Your task to perform on an android device: Open Google Chrome and click the shortcut for Amazon.com Image 0: 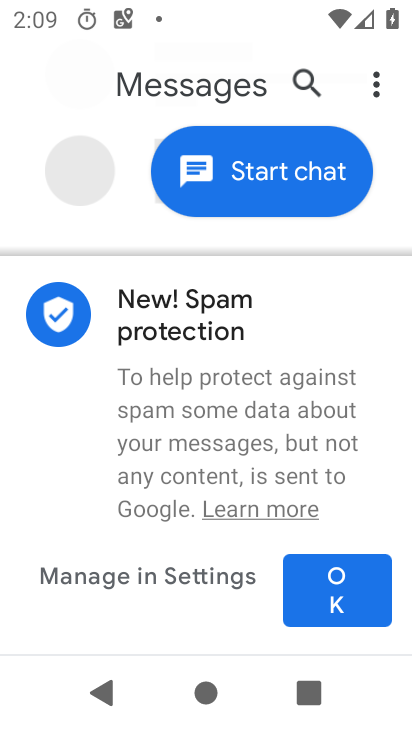
Step 0: press home button
Your task to perform on an android device: Open Google Chrome and click the shortcut for Amazon.com Image 1: 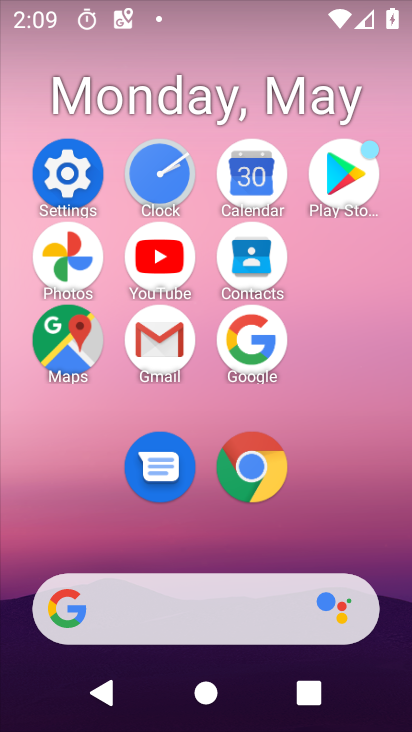
Step 1: click (229, 455)
Your task to perform on an android device: Open Google Chrome and click the shortcut for Amazon.com Image 2: 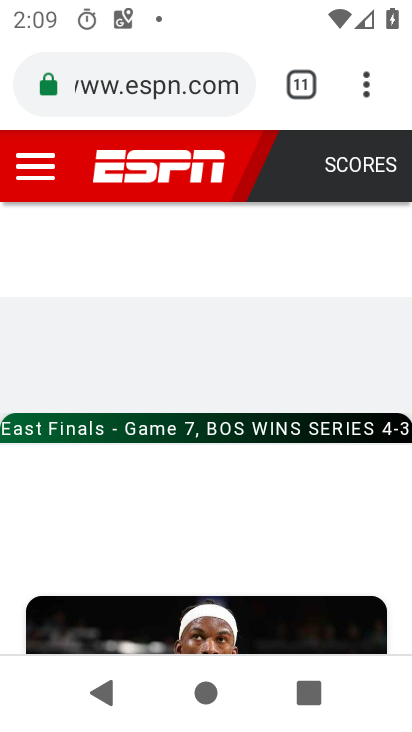
Step 2: click (306, 75)
Your task to perform on an android device: Open Google Chrome and click the shortcut for Amazon.com Image 3: 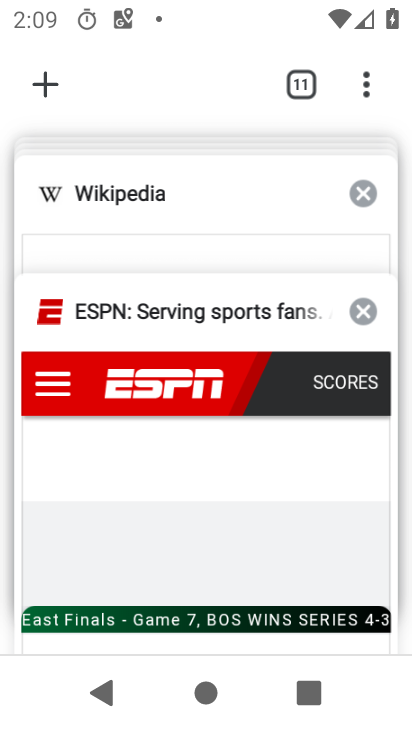
Step 3: drag from (178, 197) to (194, 557)
Your task to perform on an android device: Open Google Chrome and click the shortcut for Amazon.com Image 4: 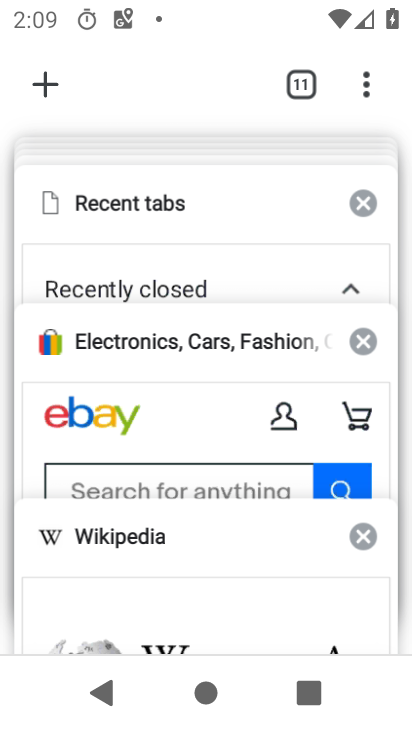
Step 4: drag from (229, 261) to (247, 619)
Your task to perform on an android device: Open Google Chrome and click the shortcut for Amazon.com Image 5: 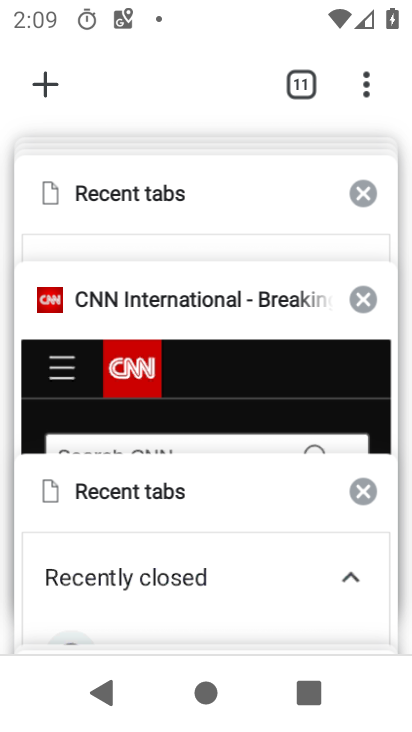
Step 5: drag from (216, 189) to (260, 485)
Your task to perform on an android device: Open Google Chrome and click the shortcut for Amazon.com Image 6: 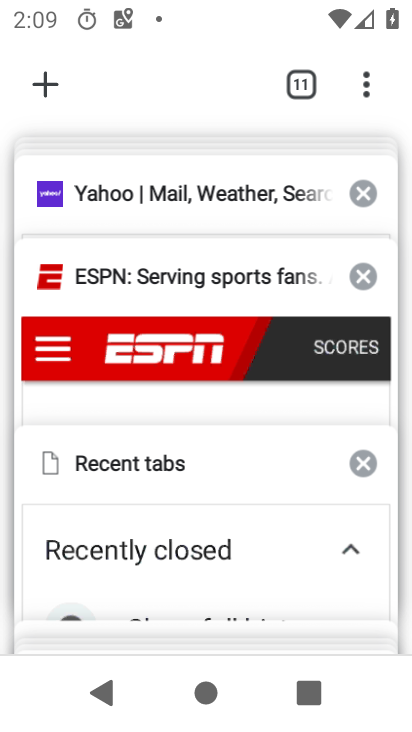
Step 6: drag from (231, 227) to (265, 545)
Your task to perform on an android device: Open Google Chrome and click the shortcut for Amazon.com Image 7: 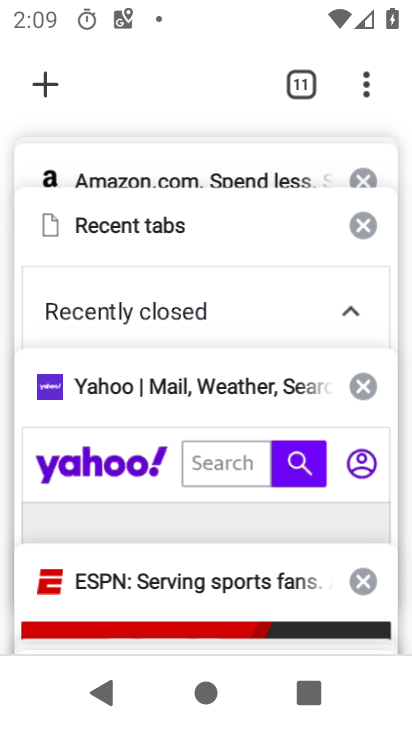
Step 7: click (200, 176)
Your task to perform on an android device: Open Google Chrome and click the shortcut for Amazon.com Image 8: 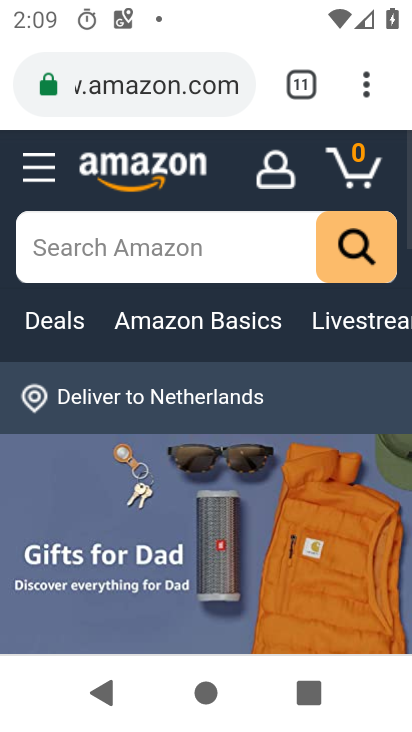
Step 8: click (360, 82)
Your task to perform on an android device: Open Google Chrome and click the shortcut for Amazon.com Image 9: 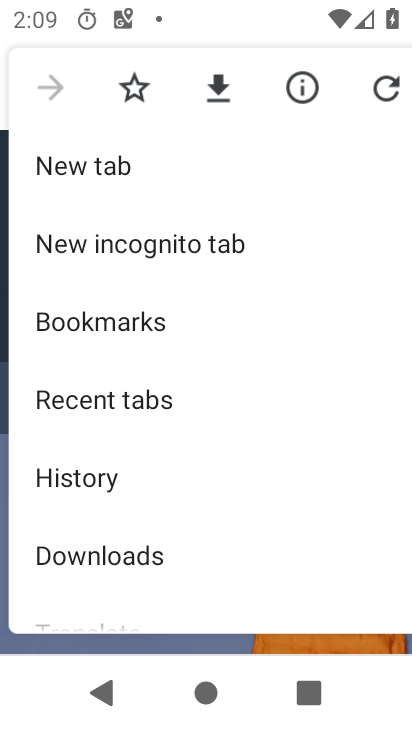
Step 9: drag from (278, 484) to (270, 190)
Your task to perform on an android device: Open Google Chrome and click the shortcut for Amazon.com Image 10: 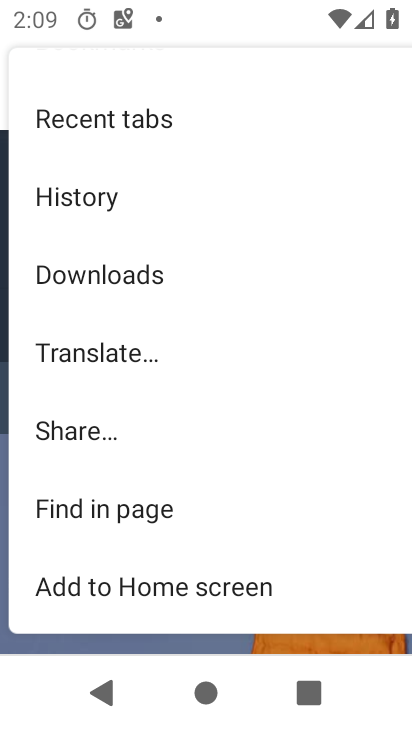
Step 10: click (154, 589)
Your task to perform on an android device: Open Google Chrome and click the shortcut for Amazon.com Image 11: 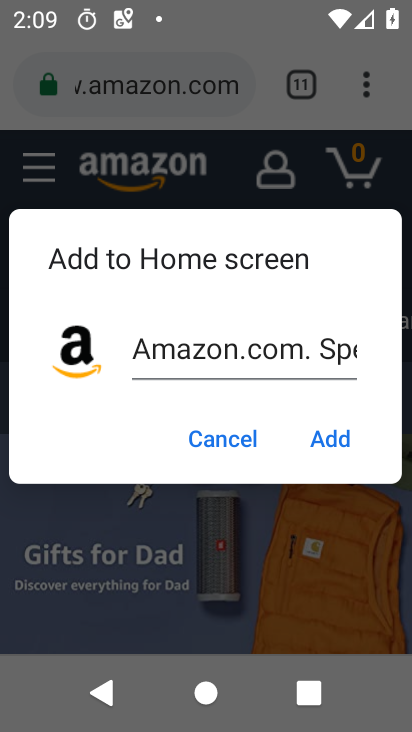
Step 11: click (320, 436)
Your task to perform on an android device: Open Google Chrome and click the shortcut for Amazon.com Image 12: 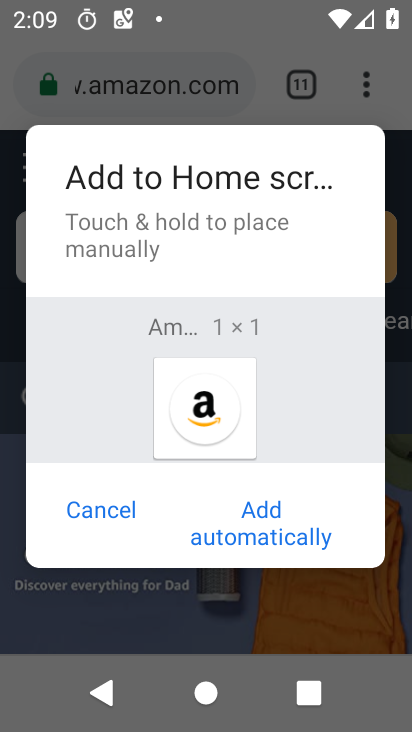
Step 12: click (279, 531)
Your task to perform on an android device: Open Google Chrome and click the shortcut for Amazon.com Image 13: 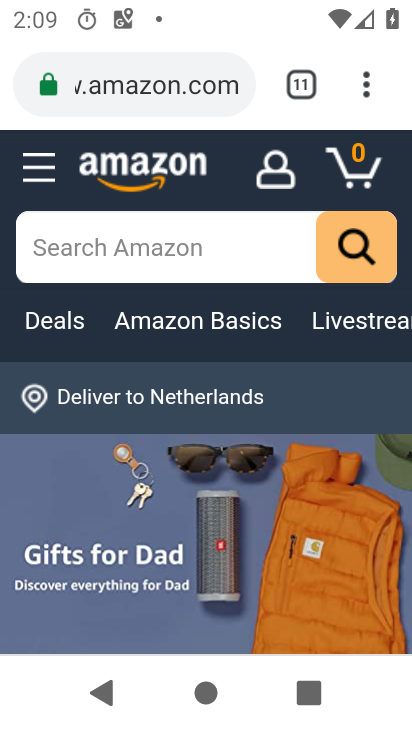
Step 13: task complete